Your task to perform on an android device: set default search engine in the chrome app Image 0: 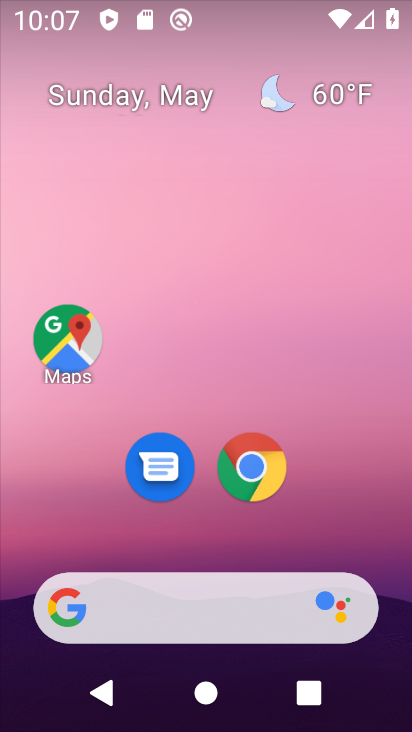
Step 0: drag from (367, 529) to (369, 170)
Your task to perform on an android device: set default search engine in the chrome app Image 1: 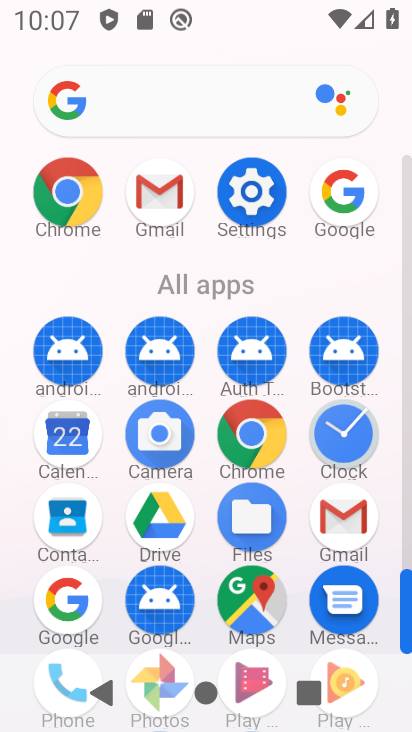
Step 1: click (270, 433)
Your task to perform on an android device: set default search engine in the chrome app Image 2: 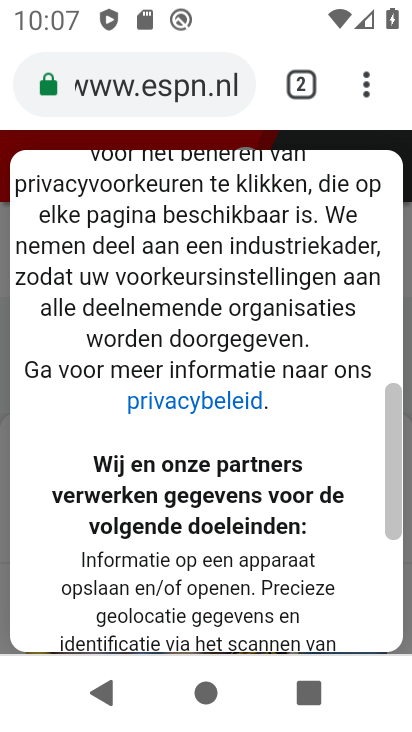
Step 2: click (299, 77)
Your task to perform on an android device: set default search engine in the chrome app Image 3: 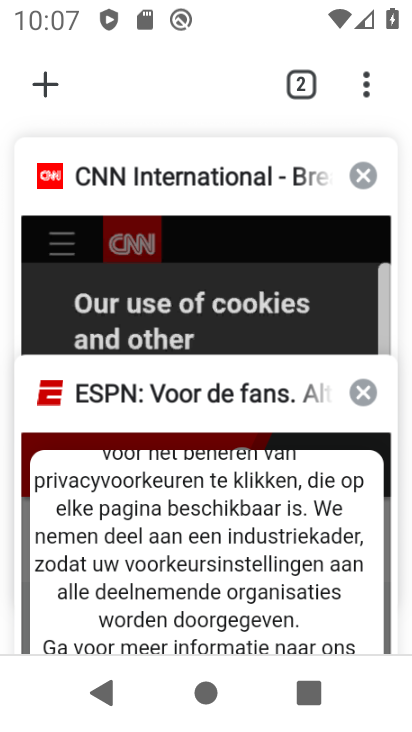
Step 3: click (68, 83)
Your task to perform on an android device: set default search engine in the chrome app Image 4: 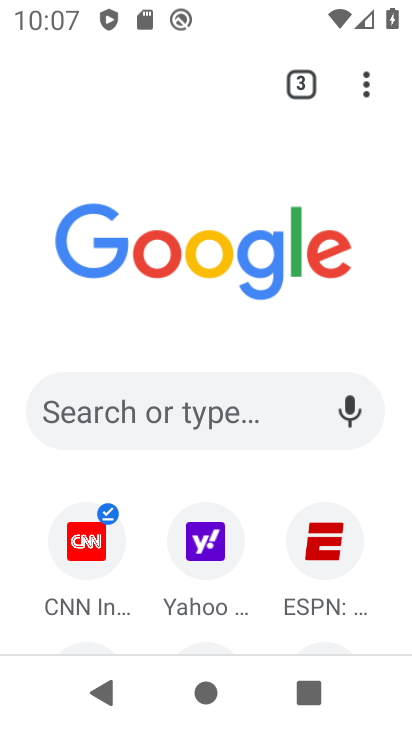
Step 4: click (380, 82)
Your task to perform on an android device: set default search engine in the chrome app Image 5: 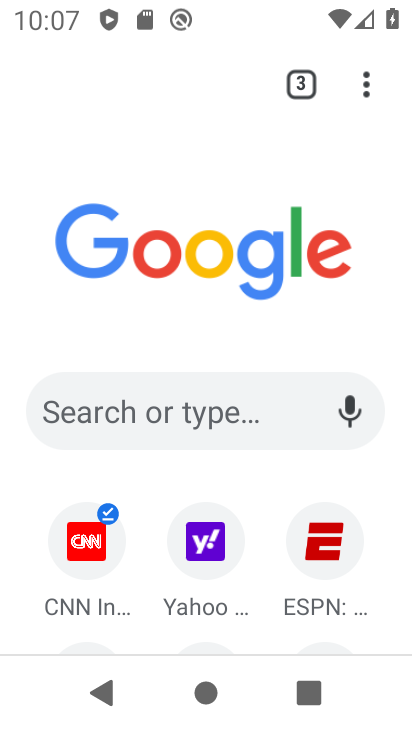
Step 5: drag from (377, 63) to (193, 536)
Your task to perform on an android device: set default search engine in the chrome app Image 6: 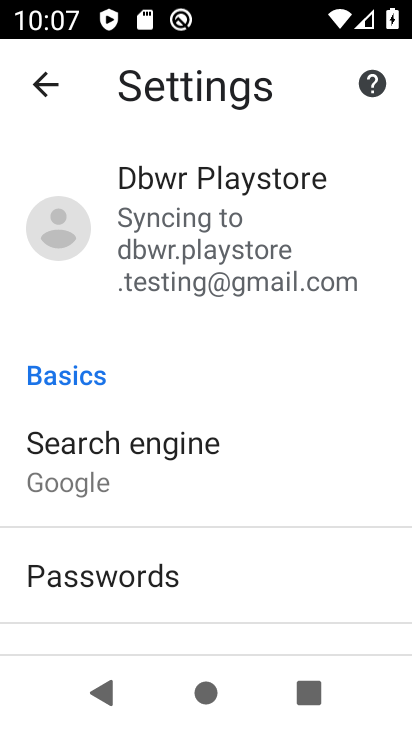
Step 6: click (167, 484)
Your task to perform on an android device: set default search engine in the chrome app Image 7: 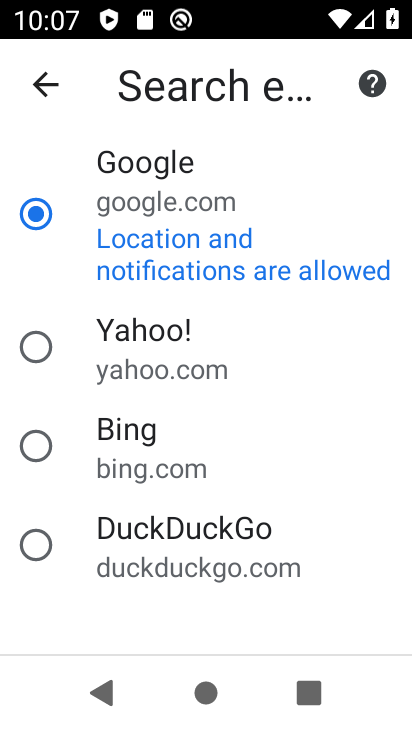
Step 7: click (119, 338)
Your task to perform on an android device: set default search engine in the chrome app Image 8: 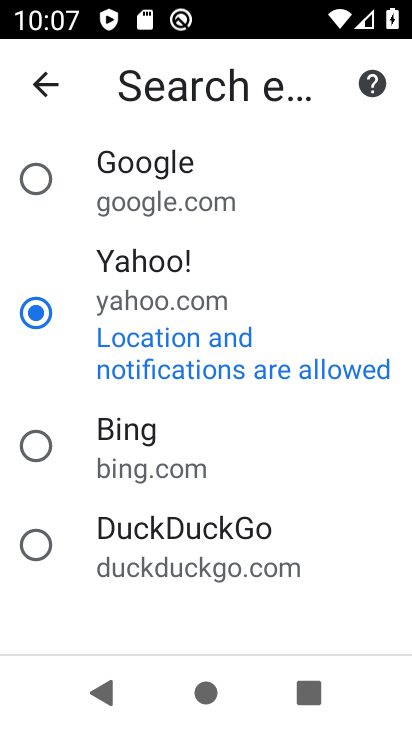
Step 8: task complete